Your task to perform on an android device: turn on priority inbox in the gmail app Image 0: 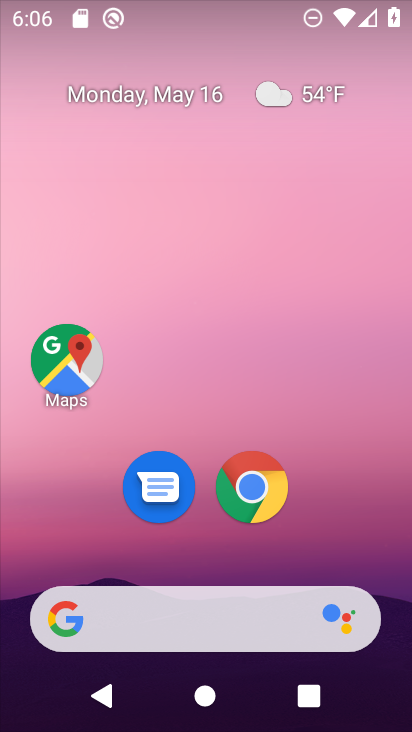
Step 0: drag from (175, 555) to (235, 76)
Your task to perform on an android device: turn on priority inbox in the gmail app Image 1: 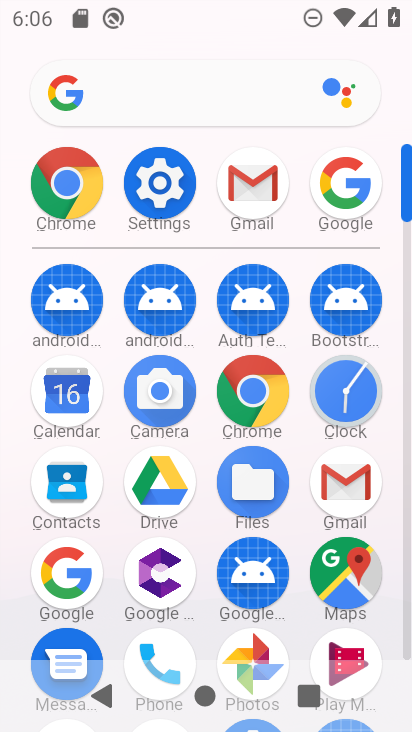
Step 1: click (257, 186)
Your task to perform on an android device: turn on priority inbox in the gmail app Image 2: 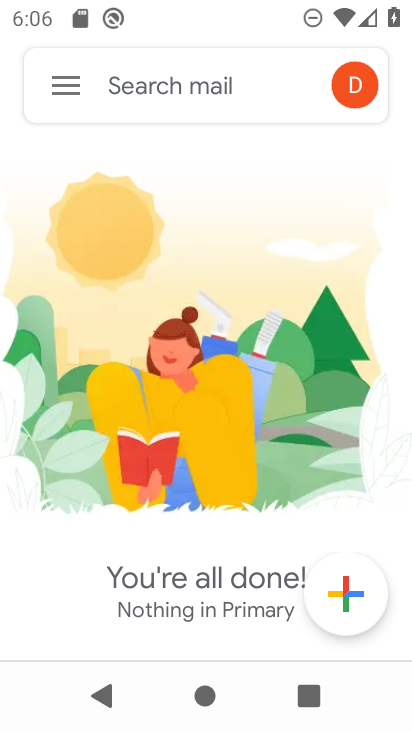
Step 2: click (73, 84)
Your task to perform on an android device: turn on priority inbox in the gmail app Image 3: 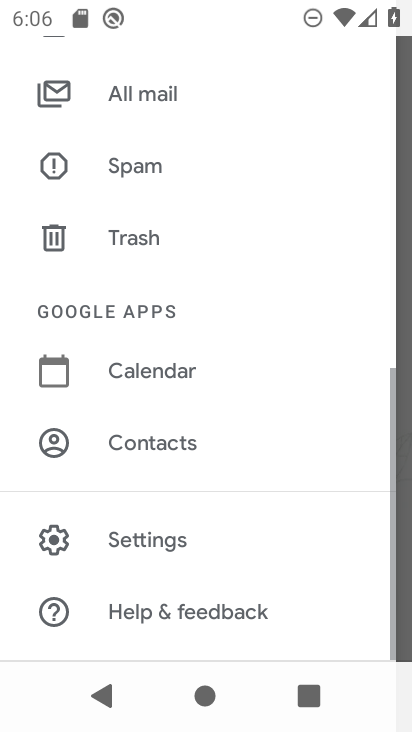
Step 3: click (156, 546)
Your task to perform on an android device: turn on priority inbox in the gmail app Image 4: 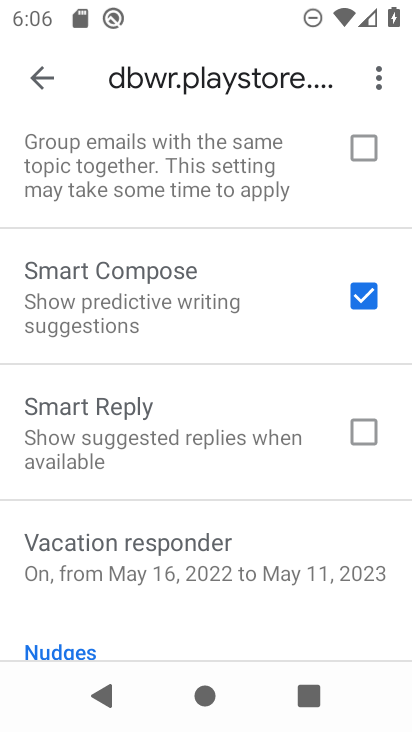
Step 4: drag from (135, 157) to (147, 611)
Your task to perform on an android device: turn on priority inbox in the gmail app Image 5: 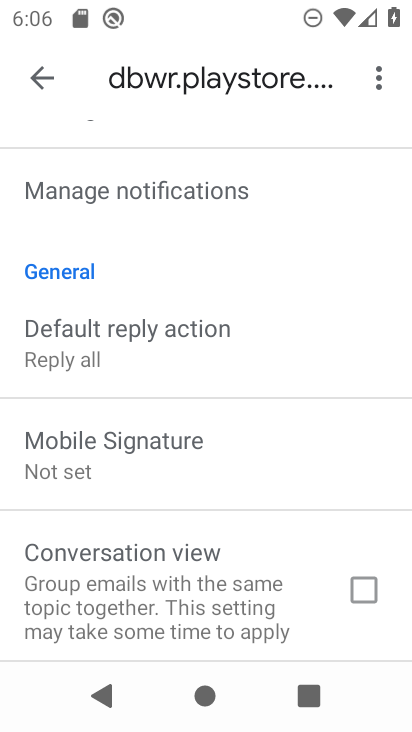
Step 5: drag from (166, 253) to (175, 525)
Your task to perform on an android device: turn on priority inbox in the gmail app Image 6: 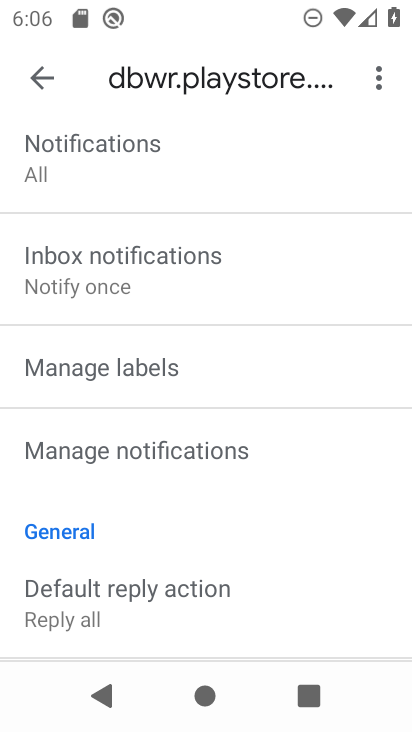
Step 6: drag from (150, 164) to (175, 493)
Your task to perform on an android device: turn on priority inbox in the gmail app Image 7: 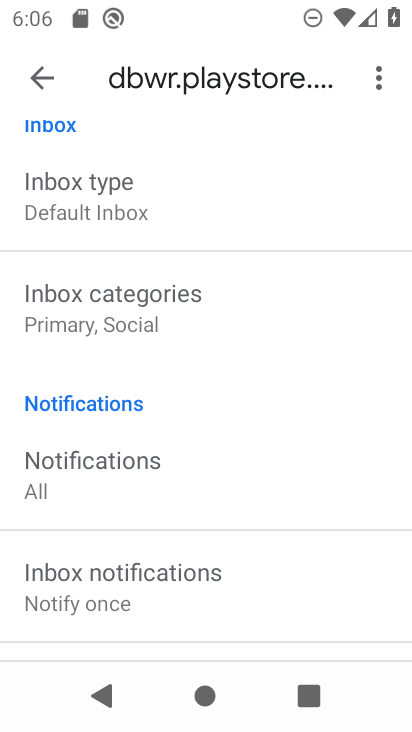
Step 7: drag from (148, 178) to (184, 476)
Your task to perform on an android device: turn on priority inbox in the gmail app Image 8: 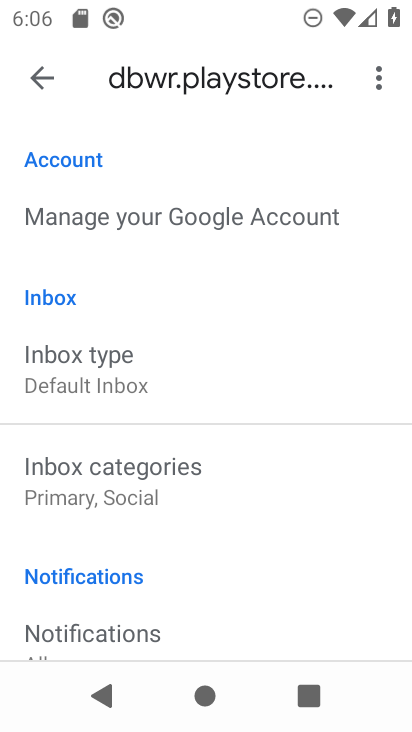
Step 8: click (93, 378)
Your task to perform on an android device: turn on priority inbox in the gmail app Image 9: 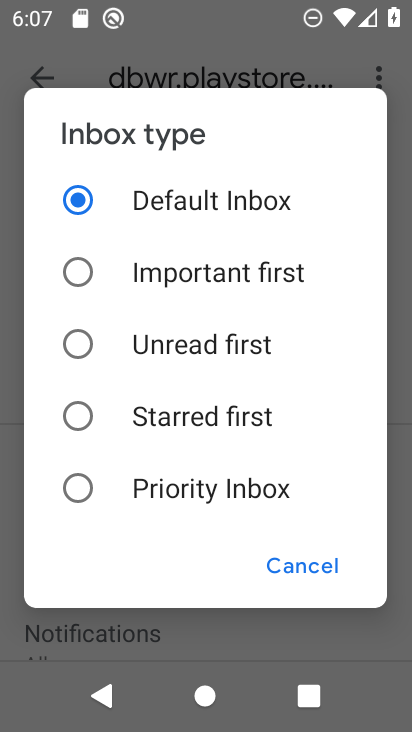
Step 9: click (84, 489)
Your task to perform on an android device: turn on priority inbox in the gmail app Image 10: 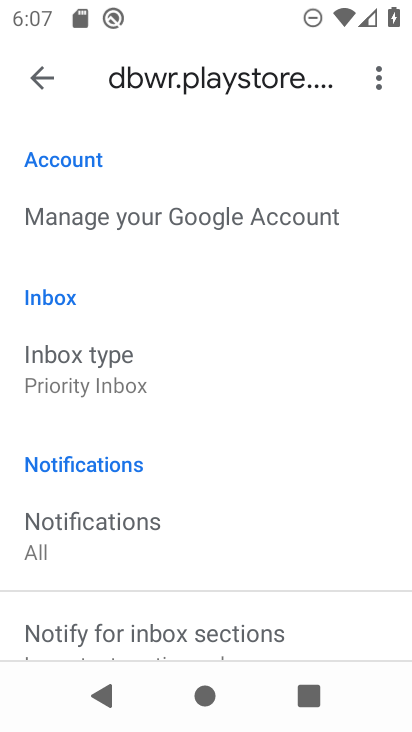
Step 10: task complete